Your task to perform on an android device: Go to network settings Image 0: 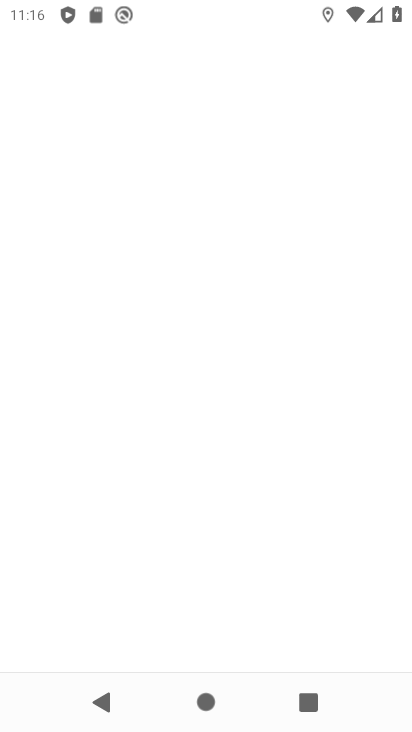
Step 0: drag from (83, 614) to (221, 92)
Your task to perform on an android device: Go to network settings Image 1: 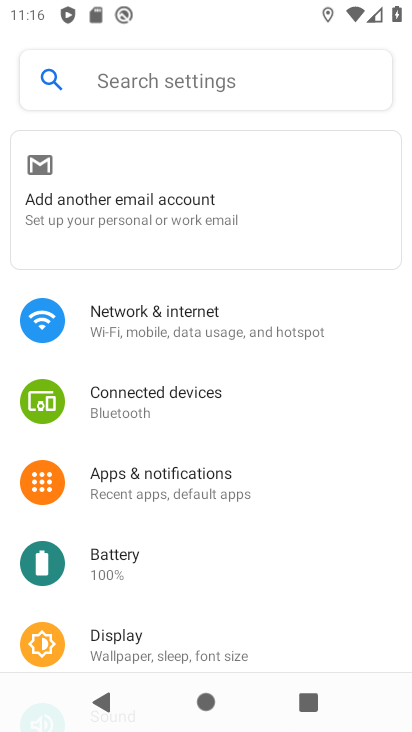
Step 1: press back button
Your task to perform on an android device: Go to network settings Image 2: 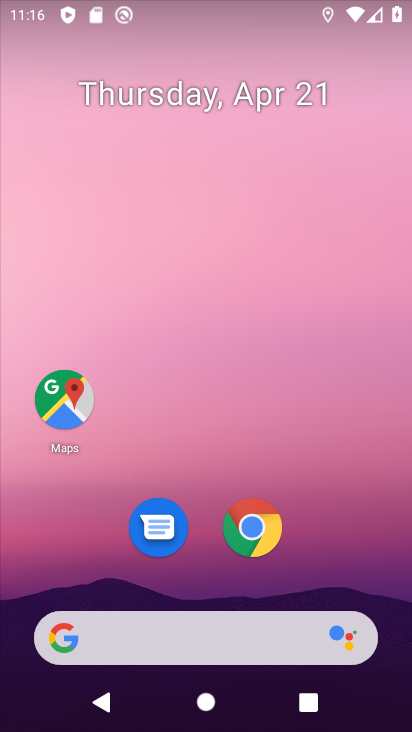
Step 2: drag from (237, 402) to (309, 44)
Your task to perform on an android device: Go to network settings Image 3: 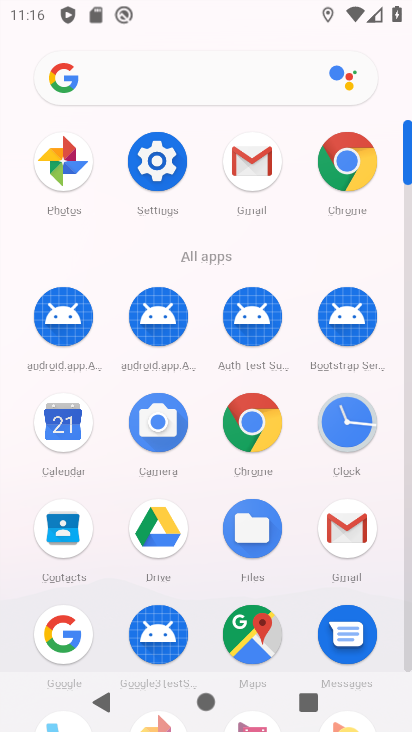
Step 3: drag from (224, 623) to (295, 308)
Your task to perform on an android device: Go to network settings Image 4: 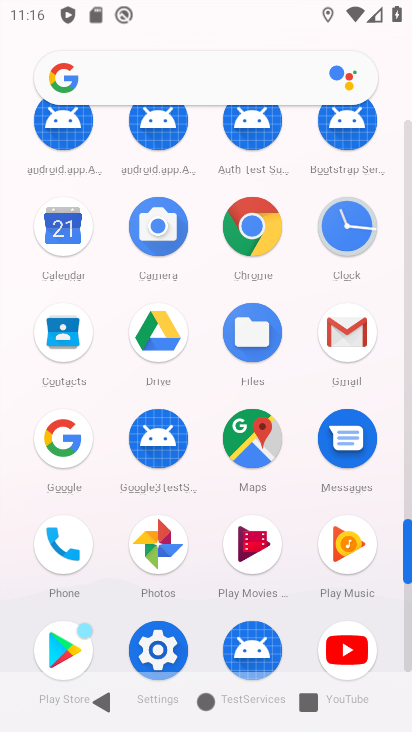
Step 4: click (168, 652)
Your task to perform on an android device: Go to network settings Image 5: 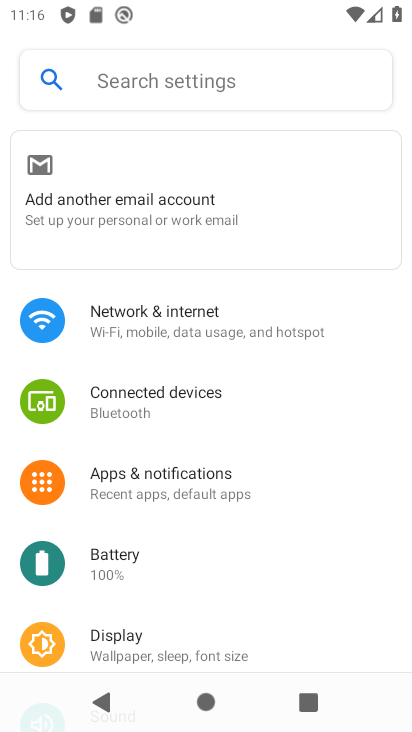
Step 5: task complete